Your task to perform on an android device: Open the web browser Image 0: 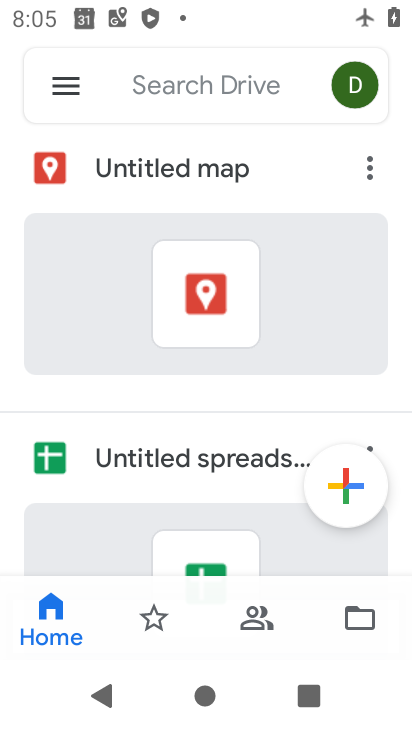
Step 0: press home button
Your task to perform on an android device: Open the web browser Image 1: 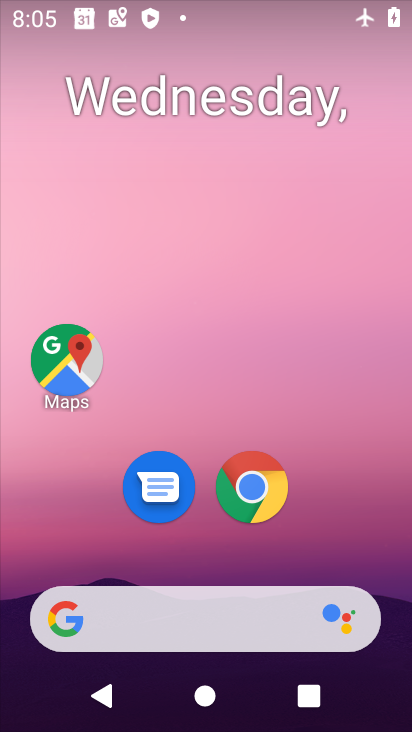
Step 1: click (309, 541)
Your task to perform on an android device: Open the web browser Image 2: 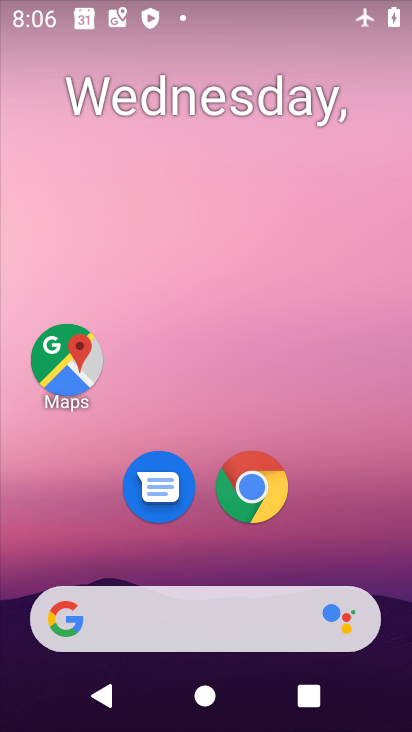
Step 2: click (256, 495)
Your task to perform on an android device: Open the web browser Image 3: 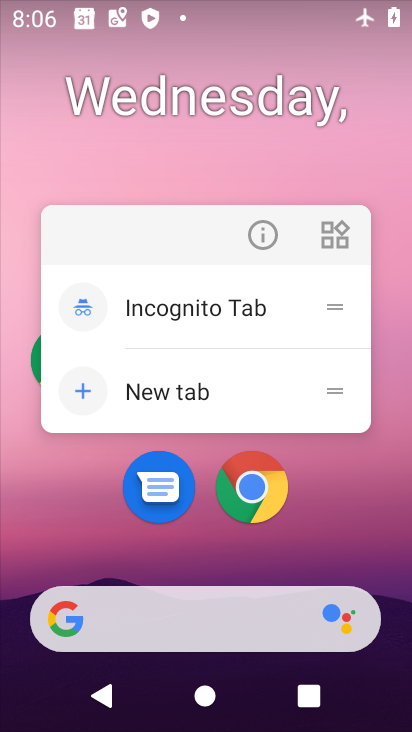
Step 3: click (256, 495)
Your task to perform on an android device: Open the web browser Image 4: 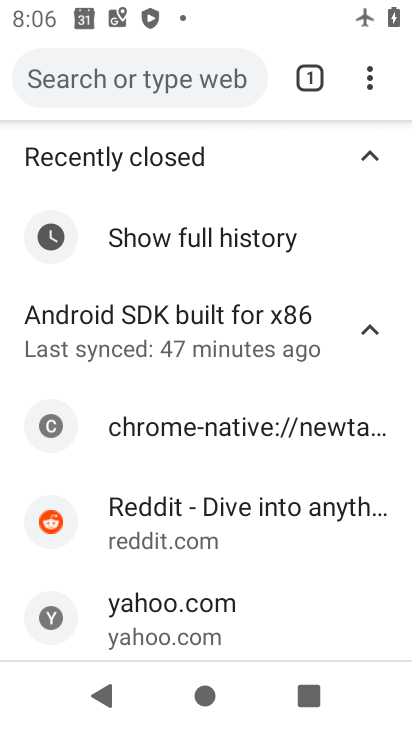
Step 4: task complete